Your task to perform on an android device: Install the Instagram app Image 0: 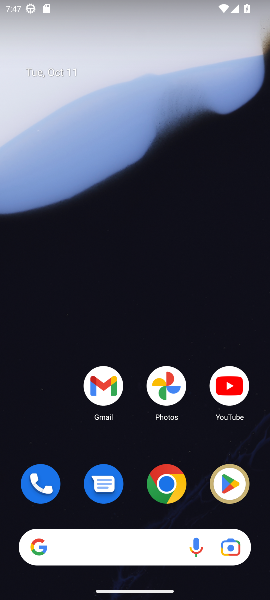
Step 0: drag from (105, 551) to (148, 179)
Your task to perform on an android device: Install the Instagram app Image 1: 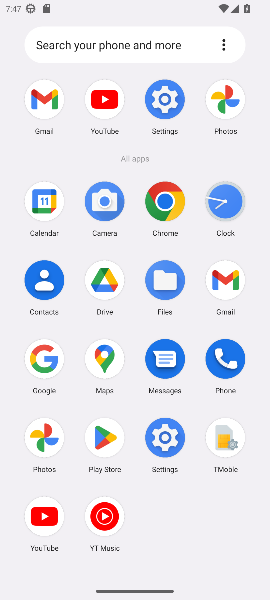
Step 1: click (108, 439)
Your task to perform on an android device: Install the Instagram app Image 2: 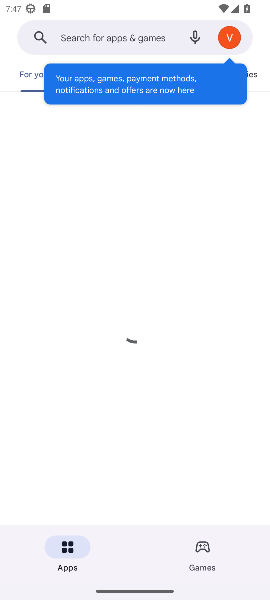
Step 2: click (121, 41)
Your task to perform on an android device: Install the Instagram app Image 3: 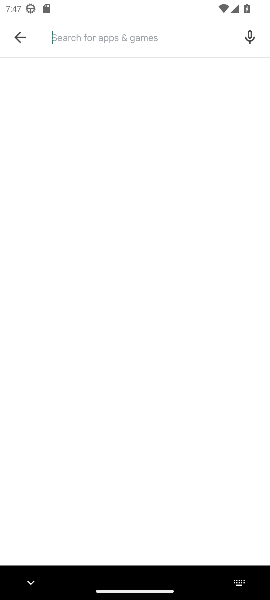
Step 3: type "Instagram app"
Your task to perform on an android device: Install the Instagram app Image 4: 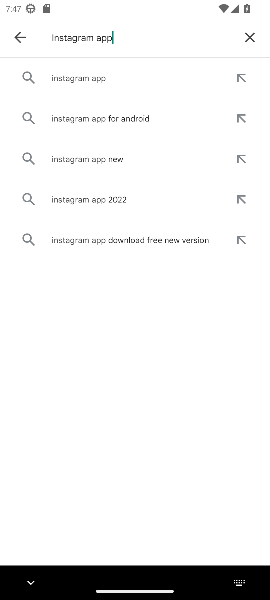
Step 4: click (87, 80)
Your task to perform on an android device: Install the Instagram app Image 5: 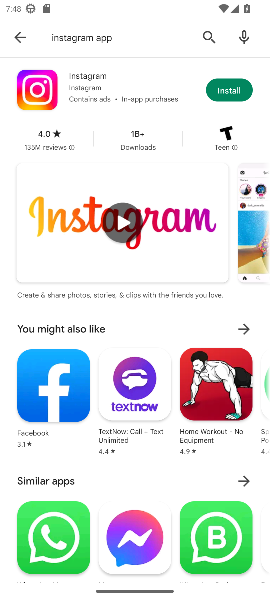
Step 5: click (227, 94)
Your task to perform on an android device: Install the Instagram app Image 6: 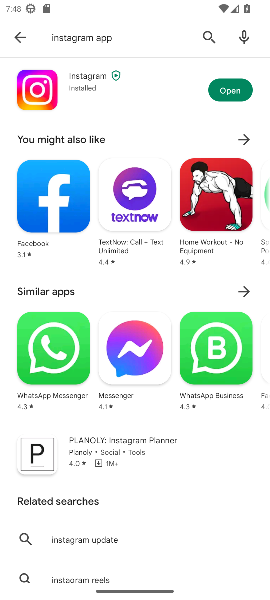
Step 6: task complete